Your task to perform on an android device: Play the last video I watched on Youtube Image 0: 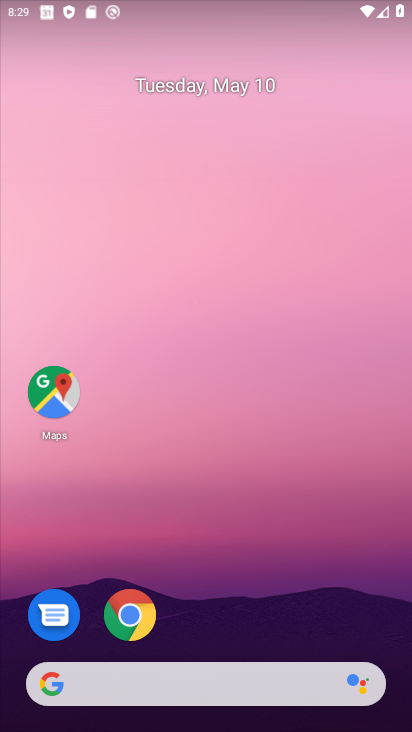
Step 0: click (159, 14)
Your task to perform on an android device: Play the last video I watched on Youtube Image 1: 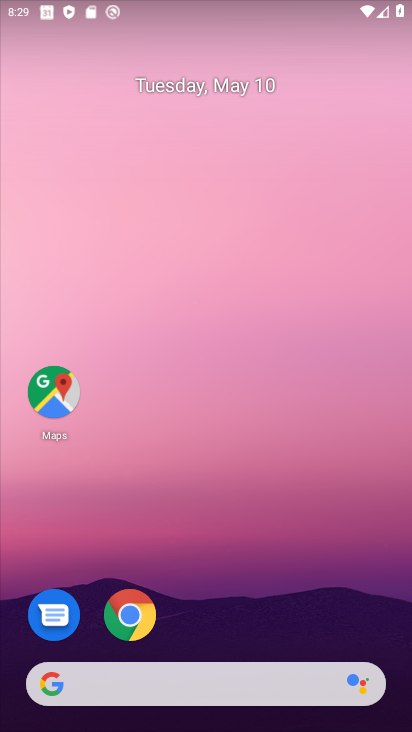
Step 1: drag from (201, 625) to (259, 162)
Your task to perform on an android device: Play the last video I watched on Youtube Image 2: 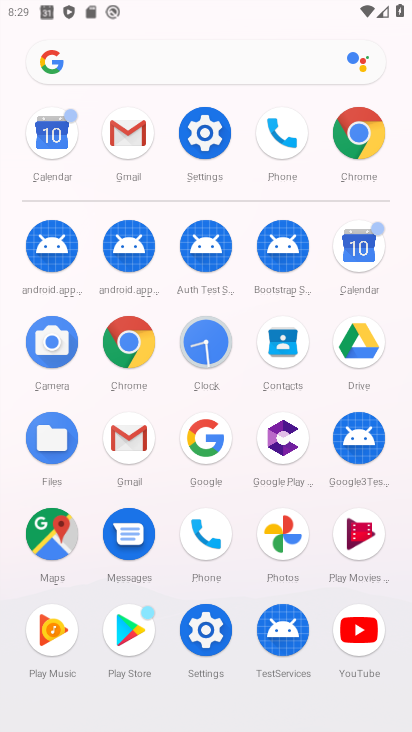
Step 2: click (344, 634)
Your task to perform on an android device: Play the last video I watched on Youtube Image 3: 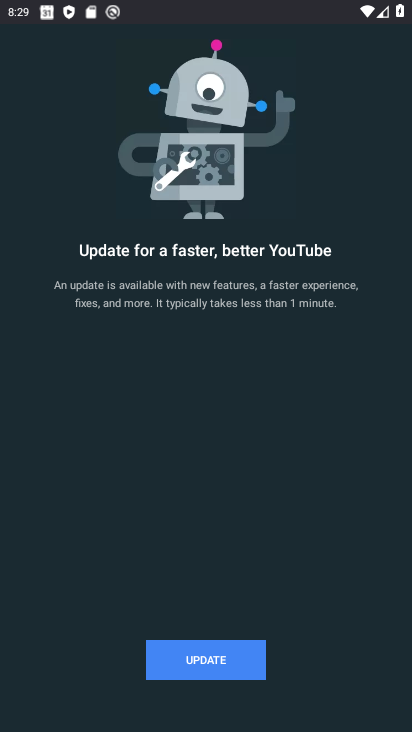
Step 3: click (410, 553)
Your task to perform on an android device: Play the last video I watched on Youtube Image 4: 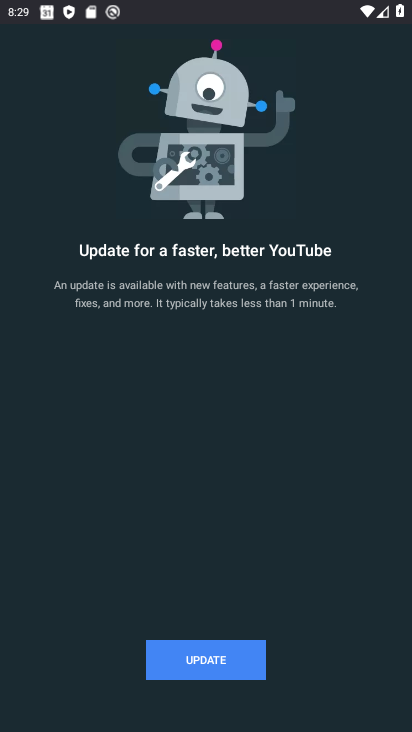
Step 4: press home button
Your task to perform on an android device: Play the last video I watched on Youtube Image 5: 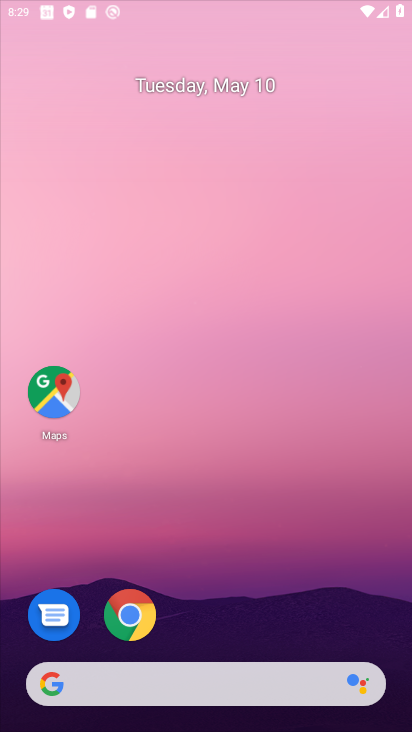
Step 5: drag from (219, 676) to (270, 398)
Your task to perform on an android device: Play the last video I watched on Youtube Image 6: 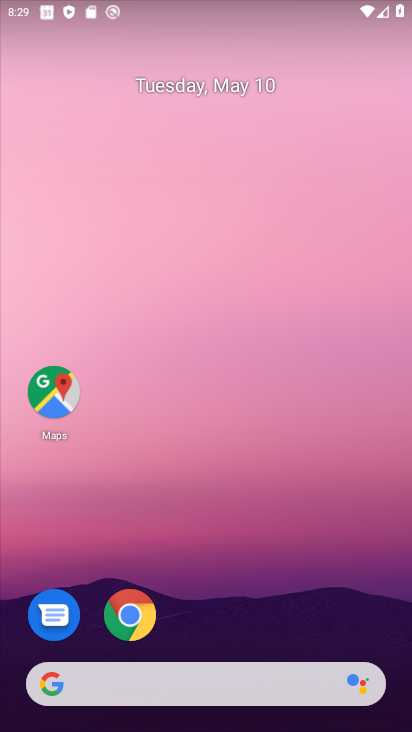
Step 6: drag from (202, 626) to (265, 152)
Your task to perform on an android device: Play the last video I watched on Youtube Image 7: 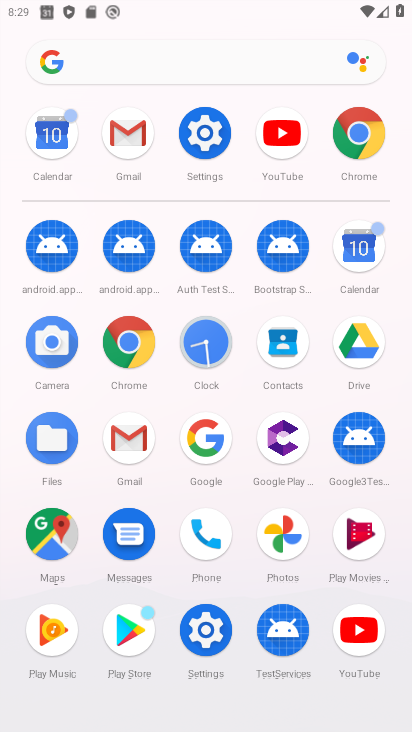
Step 7: click (283, 137)
Your task to perform on an android device: Play the last video I watched on Youtube Image 8: 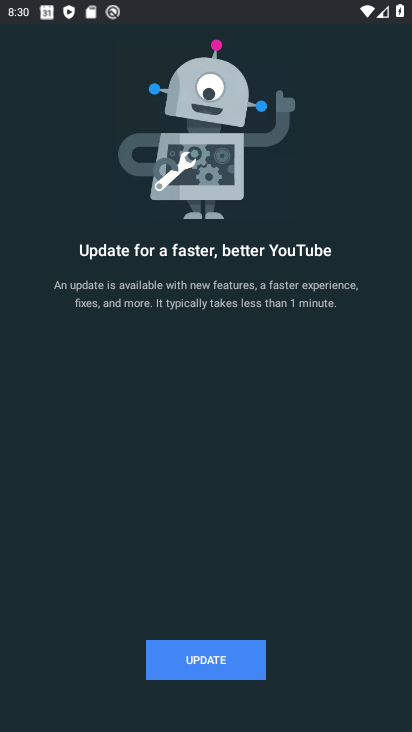
Step 8: task complete